Your task to perform on an android device: change the clock display to show seconds Image 0: 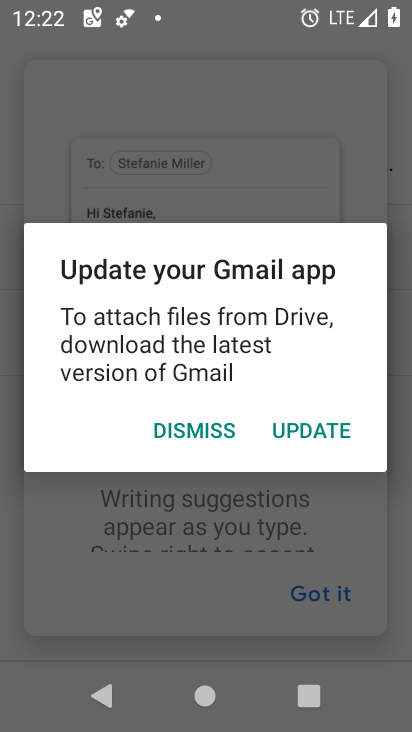
Step 0: press home button
Your task to perform on an android device: change the clock display to show seconds Image 1: 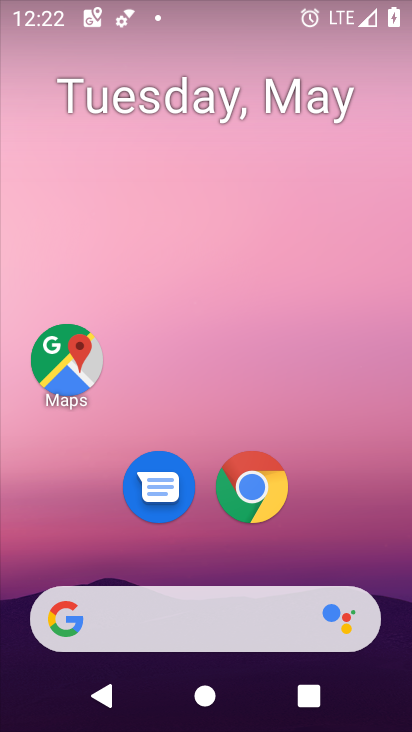
Step 1: drag from (83, 383) to (297, 65)
Your task to perform on an android device: change the clock display to show seconds Image 2: 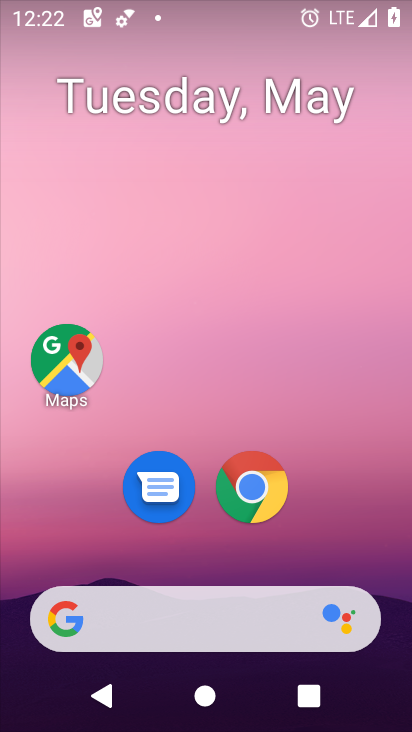
Step 2: drag from (126, 305) to (243, 80)
Your task to perform on an android device: change the clock display to show seconds Image 3: 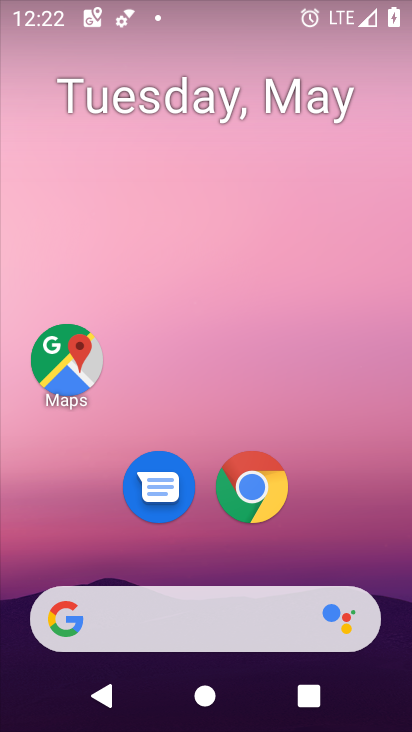
Step 3: drag from (31, 444) to (146, 201)
Your task to perform on an android device: change the clock display to show seconds Image 4: 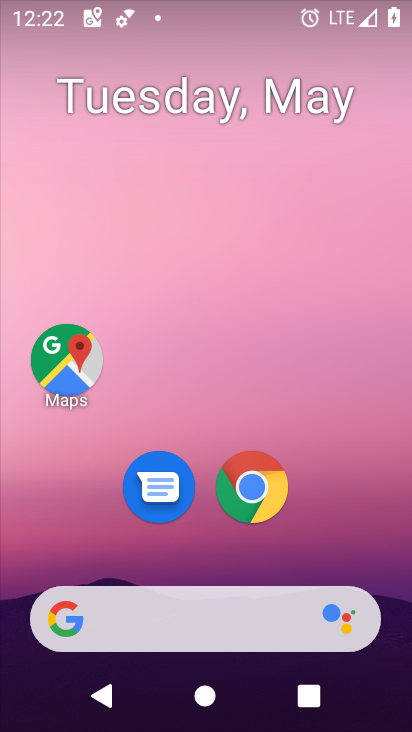
Step 4: drag from (20, 590) to (301, 89)
Your task to perform on an android device: change the clock display to show seconds Image 5: 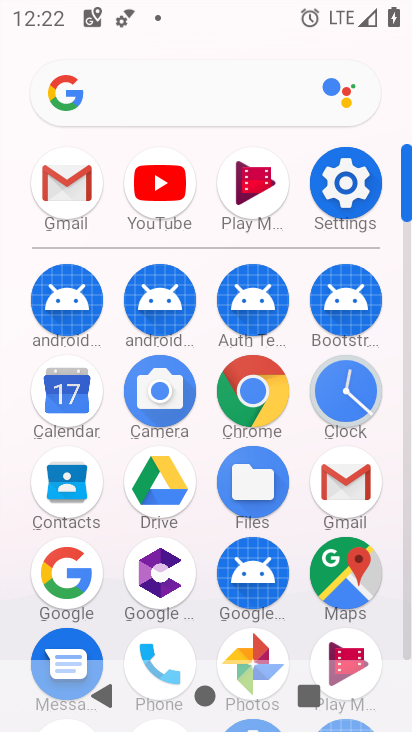
Step 5: click (364, 391)
Your task to perform on an android device: change the clock display to show seconds Image 6: 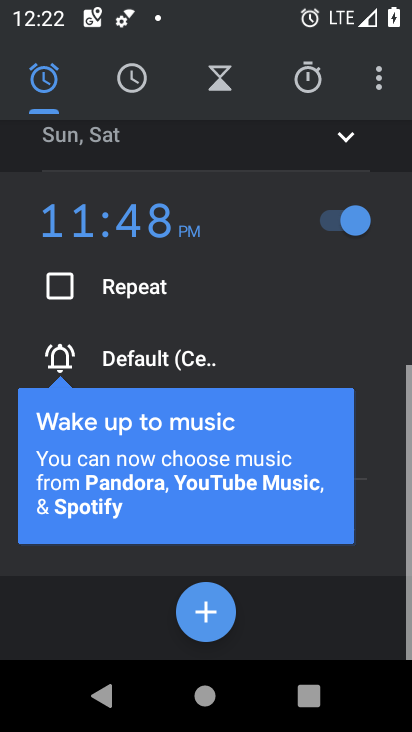
Step 6: click (383, 93)
Your task to perform on an android device: change the clock display to show seconds Image 7: 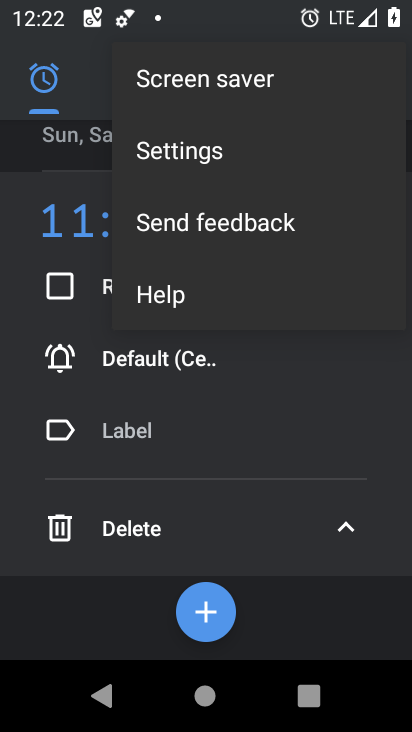
Step 7: click (234, 157)
Your task to perform on an android device: change the clock display to show seconds Image 8: 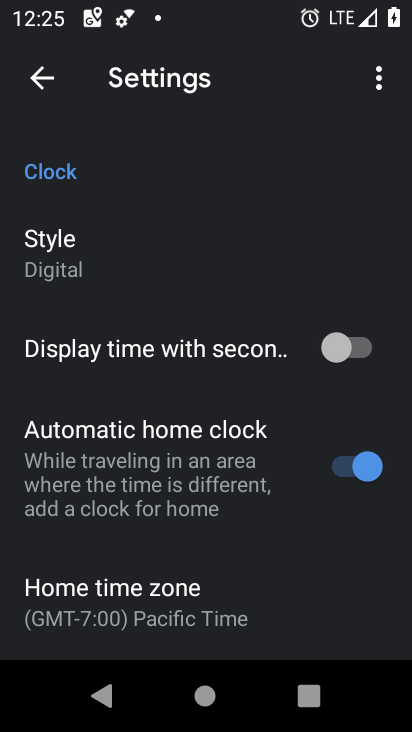
Step 8: drag from (29, 557) to (292, 89)
Your task to perform on an android device: change the clock display to show seconds Image 9: 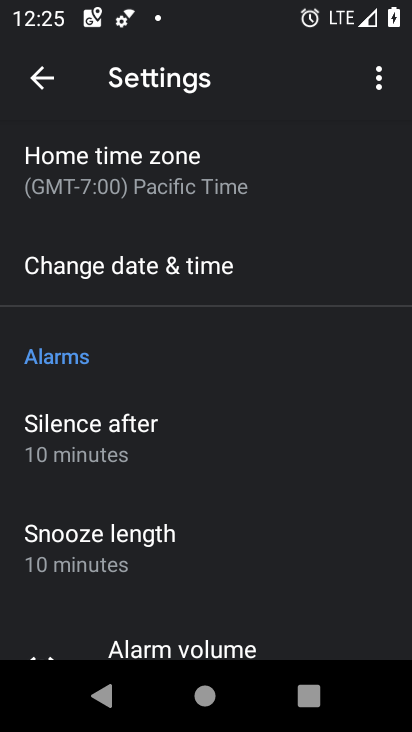
Step 9: drag from (30, 526) to (158, 253)
Your task to perform on an android device: change the clock display to show seconds Image 10: 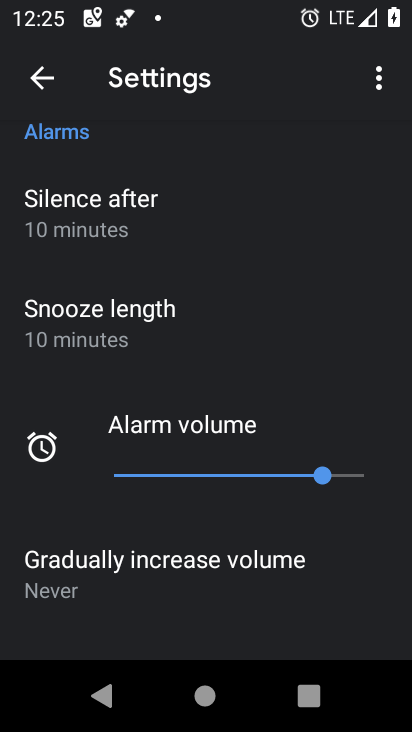
Step 10: drag from (10, 644) to (182, 216)
Your task to perform on an android device: change the clock display to show seconds Image 11: 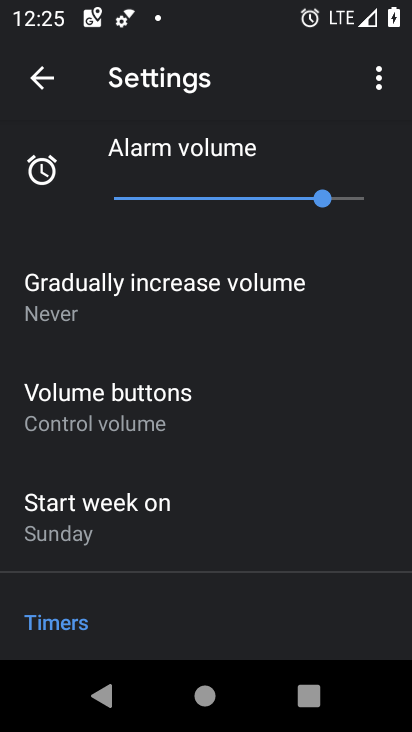
Step 11: drag from (6, 484) to (182, 147)
Your task to perform on an android device: change the clock display to show seconds Image 12: 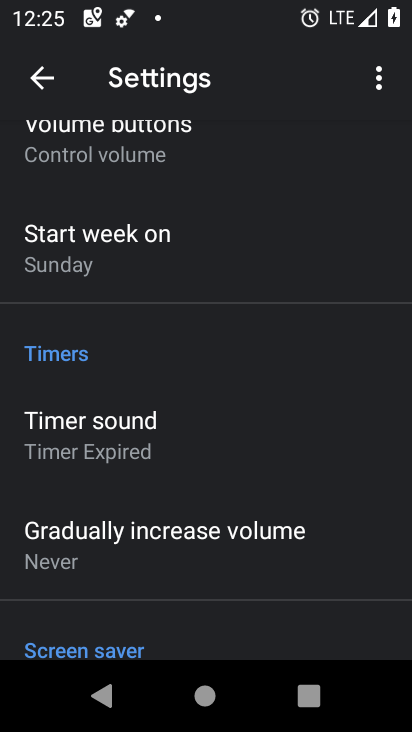
Step 12: drag from (173, 146) to (111, 654)
Your task to perform on an android device: change the clock display to show seconds Image 13: 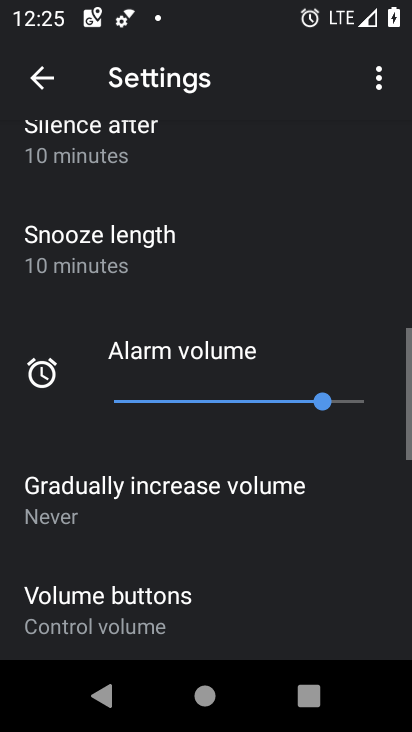
Step 13: drag from (122, 123) to (127, 574)
Your task to perform on an android device: change the clock display to show seconds Image 14: 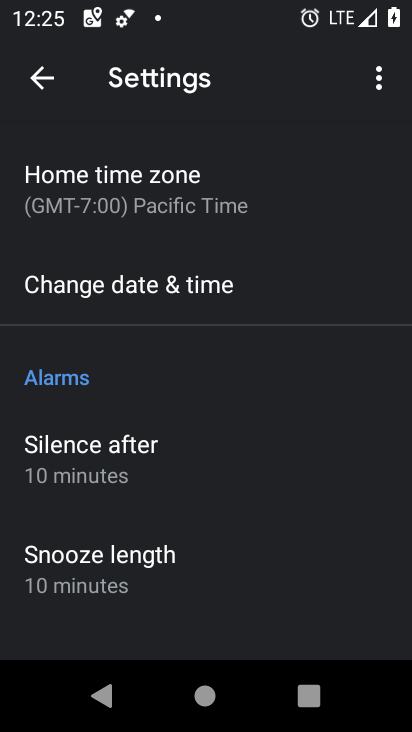
Step 14: drag from (170, 179) to (138, 522)
Your task to perform on an android device: change the clock display to show seconds Image 15: 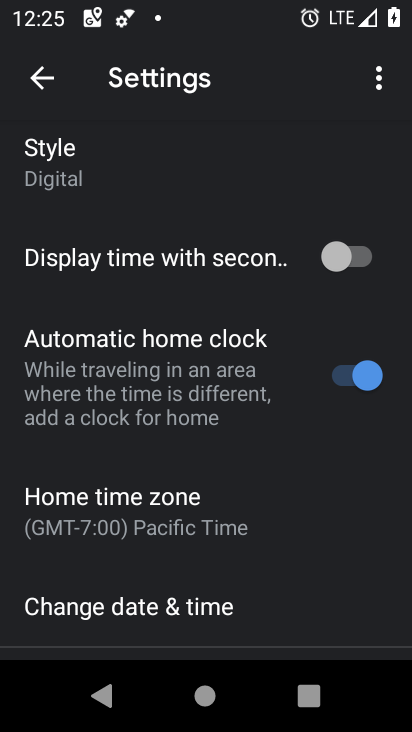
Step 15: click (348, 255)
Your task to perform on an android device: change the clock display to show seconds Image 16: 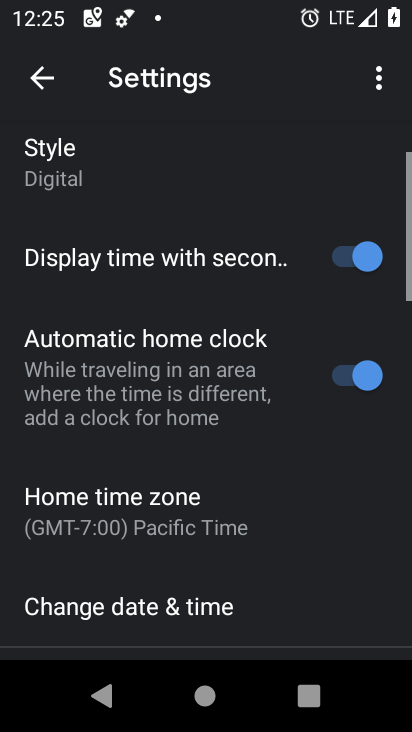
Step 16: task complete